Your task to perform on an android device: set the stopwatch Image 0: 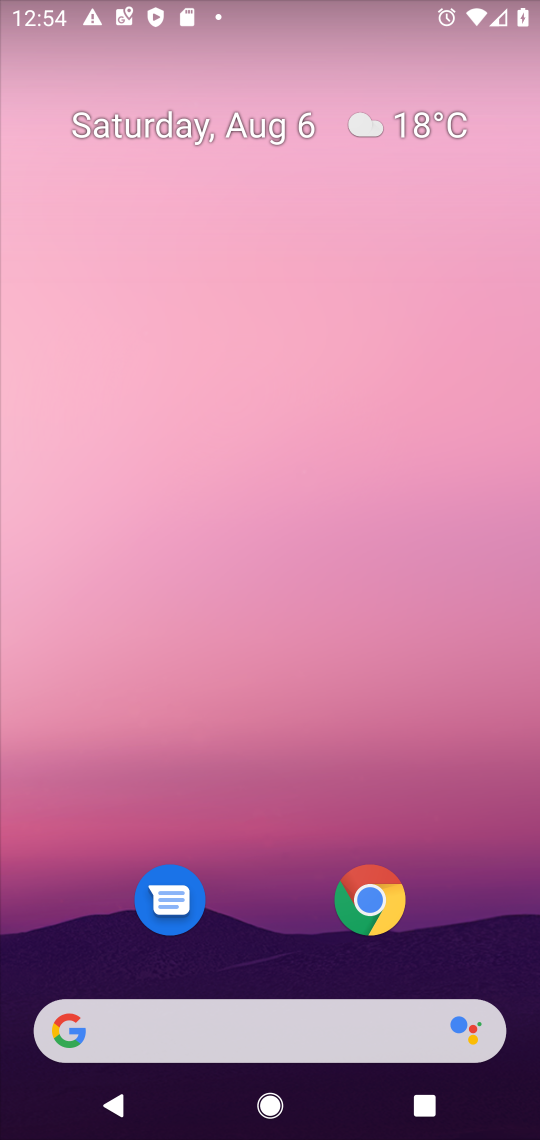
Step 0: drag from (498, 941) to (395, 230)
Your task to perform on an android device: set the stopwatch Image 1: 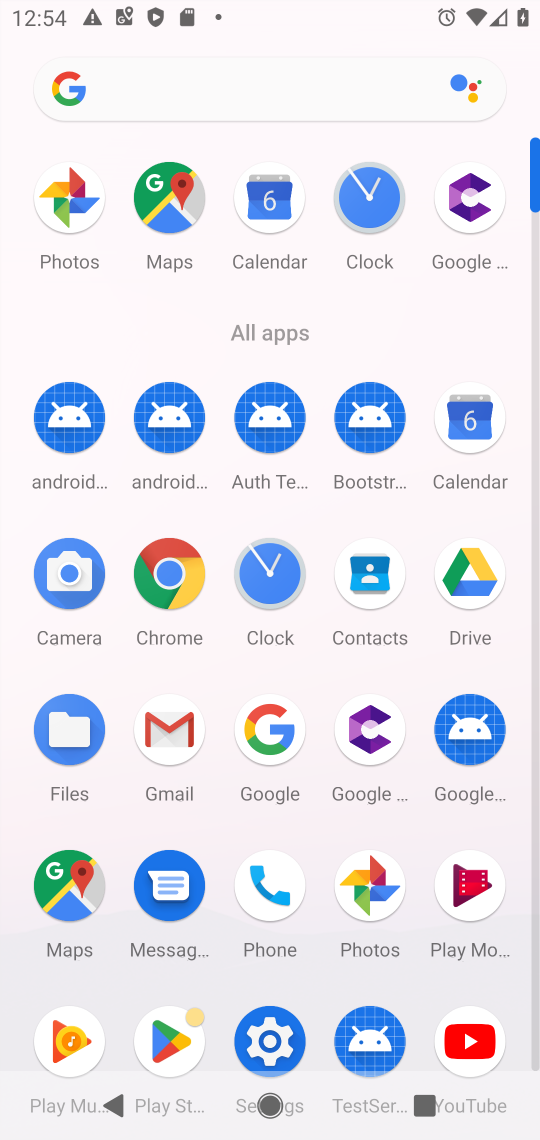
Step 1: click (274, 581)
Your task to perform on an android device: set the stopwatch Image 2: 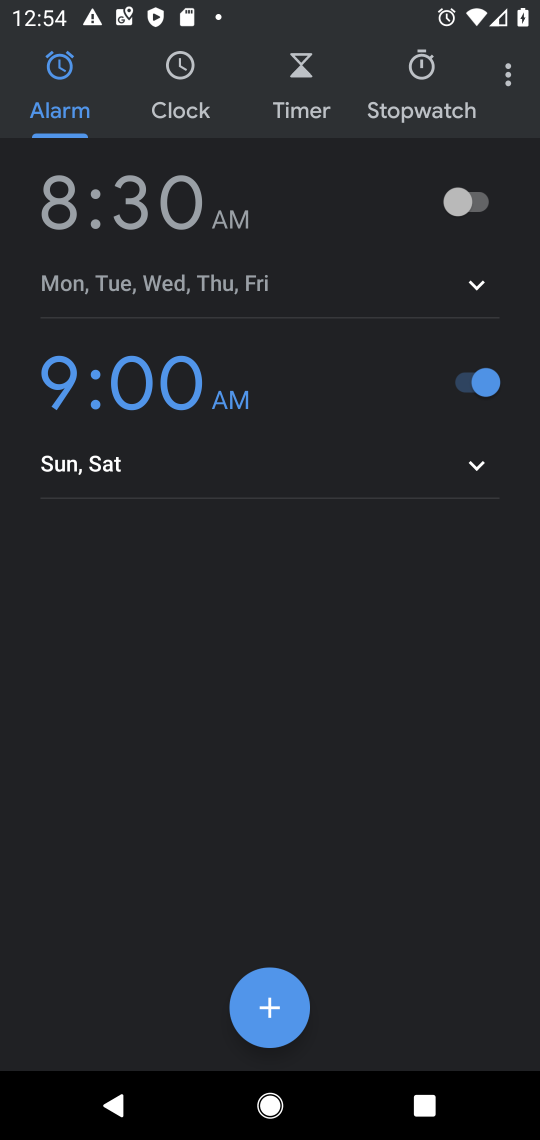
Step 2: click (405, 116)
Your task to perform on an android device: set the stopwatch Image 3: 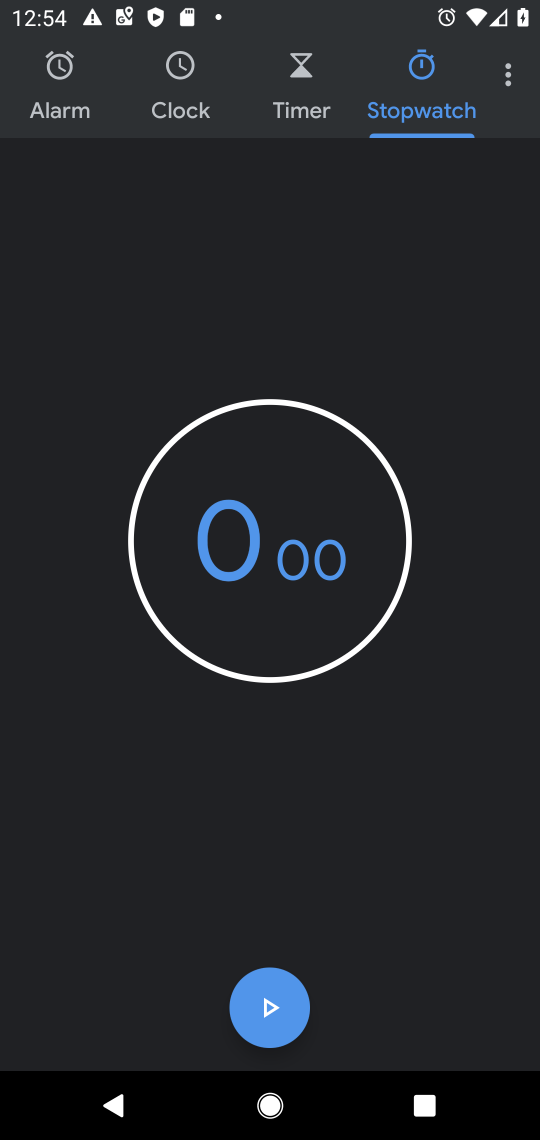
Step 3: click (304, 619)
Your task to perform on an android device: set the stopwatch Image 4: 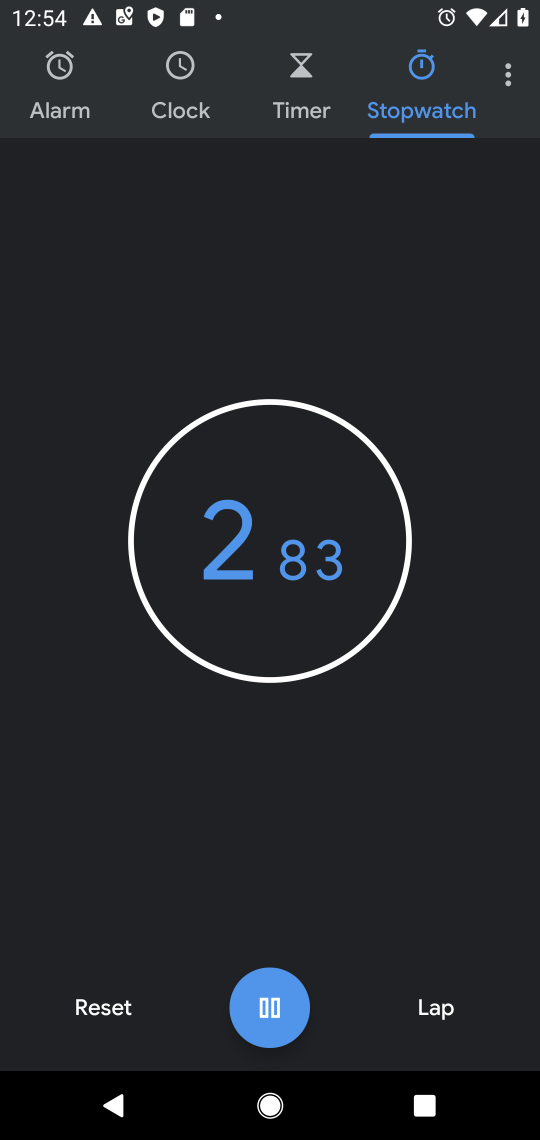
Step 4: task complete